Your task to perform on an android device: Open the calendar app, open the side menu, and click the "Day" option Image 0: 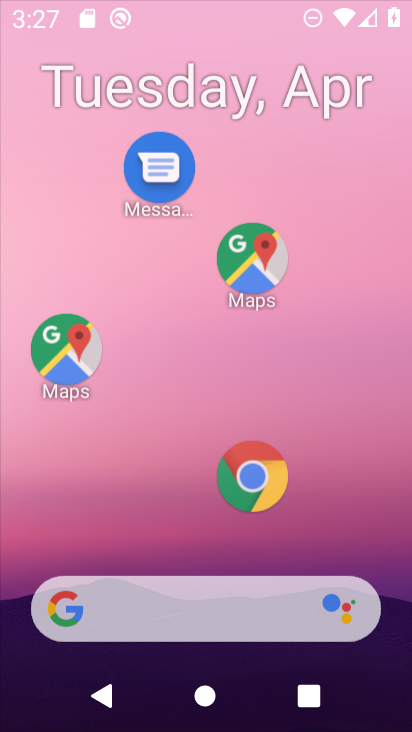
Step 0: click (230, 343)
Your task to perform on an android device: Open the calendar app, open the side menu, and click the "Day" option Image 1: 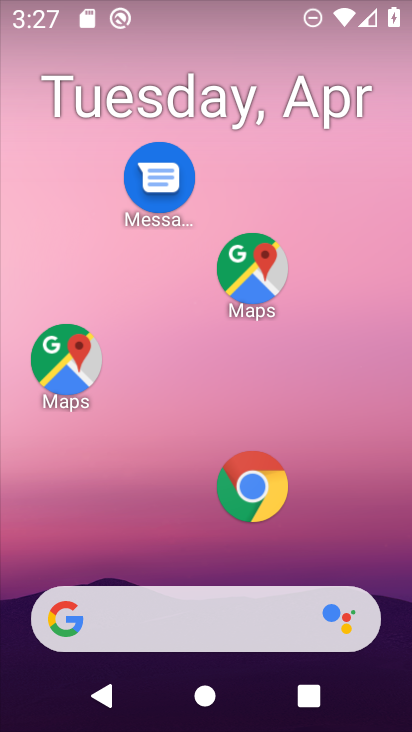
Step 1: task complete